Your task to perform on an android device: Open location settings Image 0: 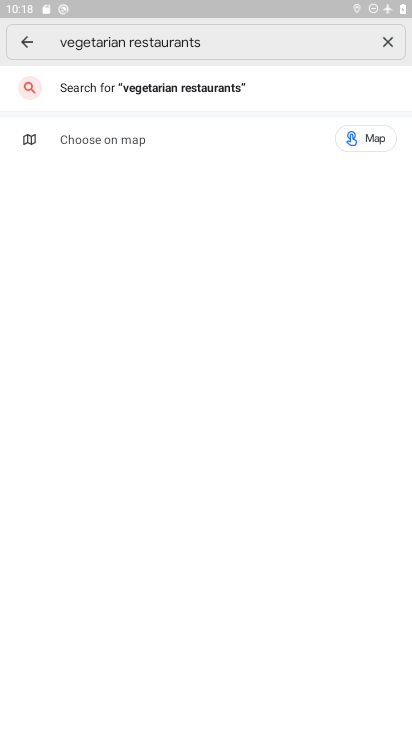
Step 0: press home button
Your task to perform on an android device: Open location settings Image 1: 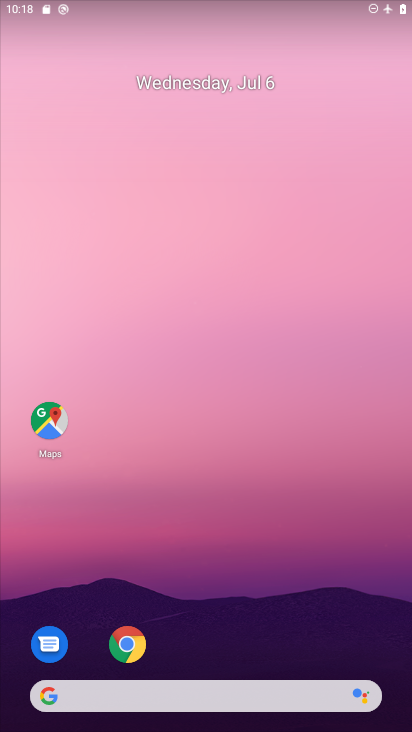
Step 1: drag from (208, 570) to (200, 207)
Your task to perform on an android device: Open location settings Image 2: 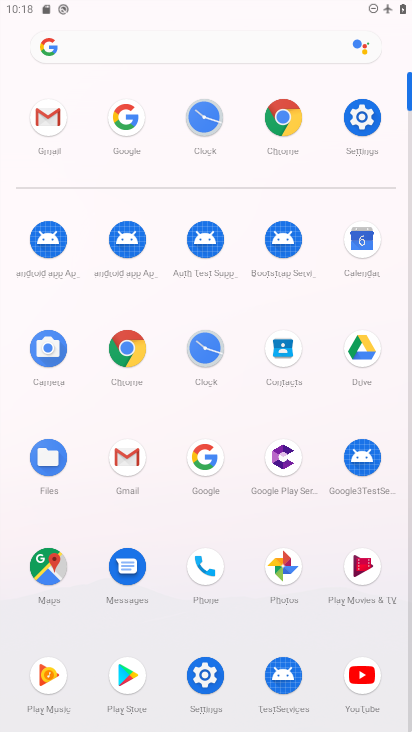
Step 2: click (365, 121)
Your task to perform on an android device: Open location settings Image 3: 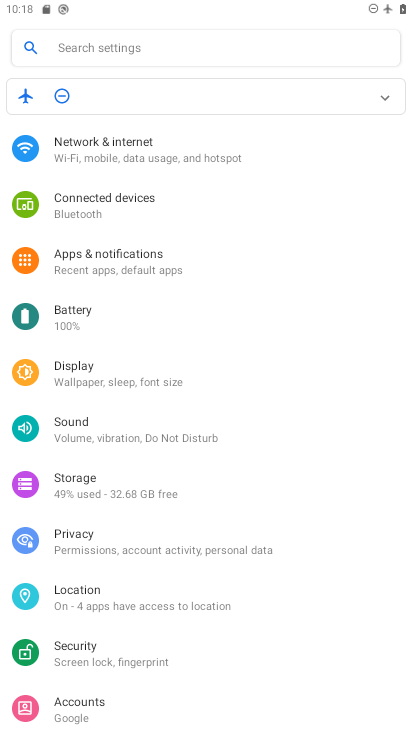
Step 3: click (117, 591)
Your task to perform on an android device: Open location settings Image 4: 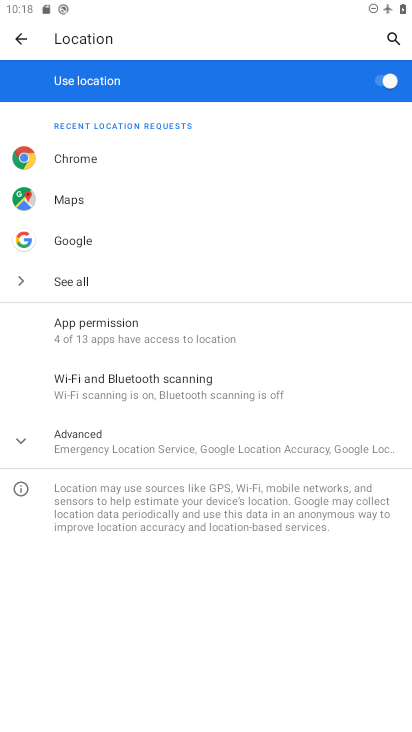
Step 4: task complete